Your task to perform on an android device: turn off location history Image 0: 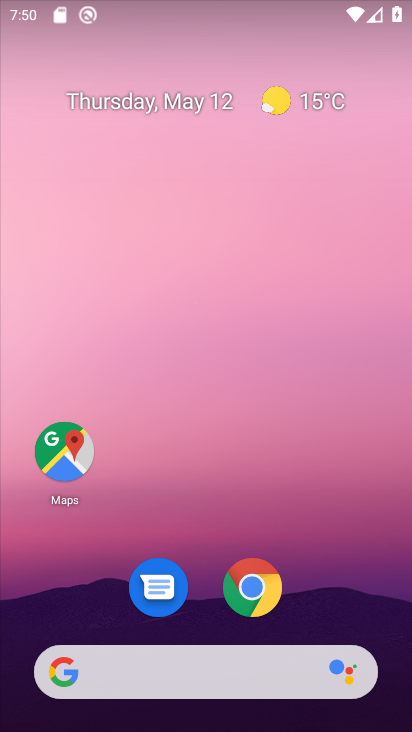
Step 0: drag from (376, 654) to (232, 90)
Your task to perform on an android device: turn off location history Image 1: 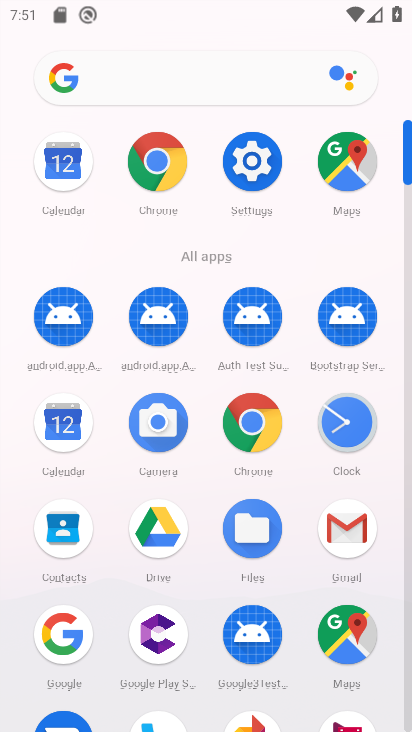
Step 1: click (259, 180)
Your task to perform on an android device: turn off location history Image 2: 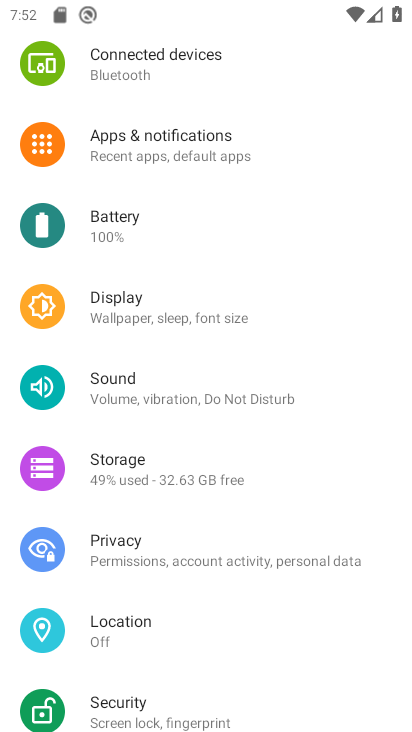
Step 2: click (183, 641)
Your task to perform on an android device: turn off location history Image 3: 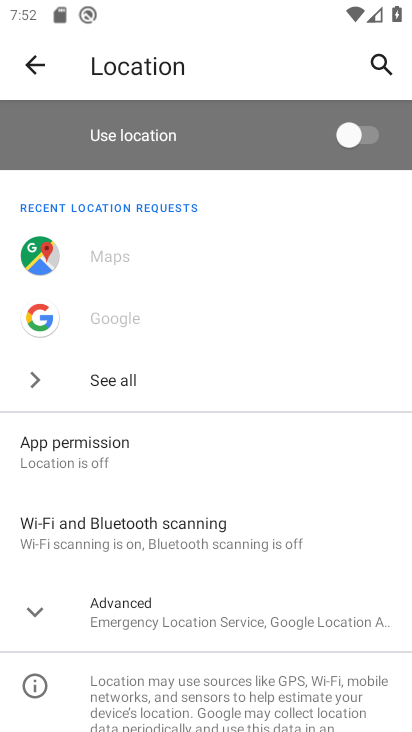
Step 3: click (103, 615)
Your task to perform on an android device: turn off location history Image 4: 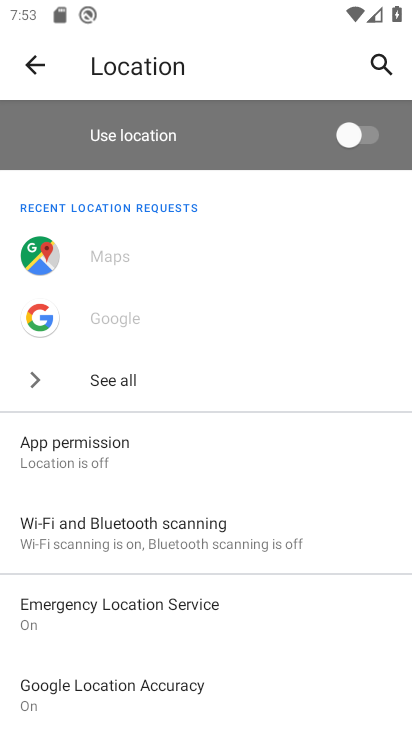
Step 4: drag from (215, 679) to (228, 405)
Your task to perform on an android device: turn off location history Image 5: 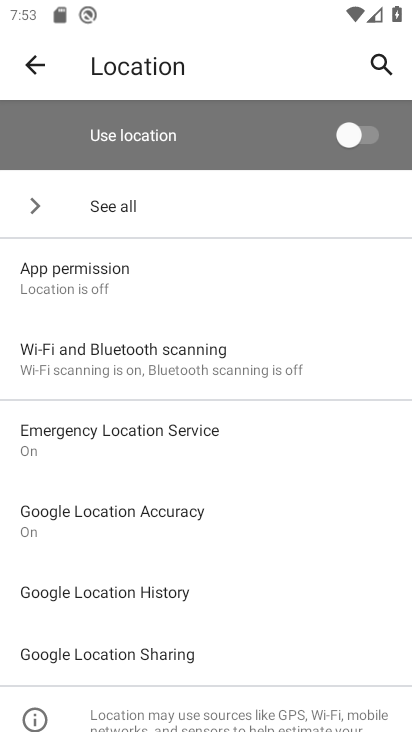
Step 5: click (160, 596)
Your task to perform on an android device: turn off location history Image 6: 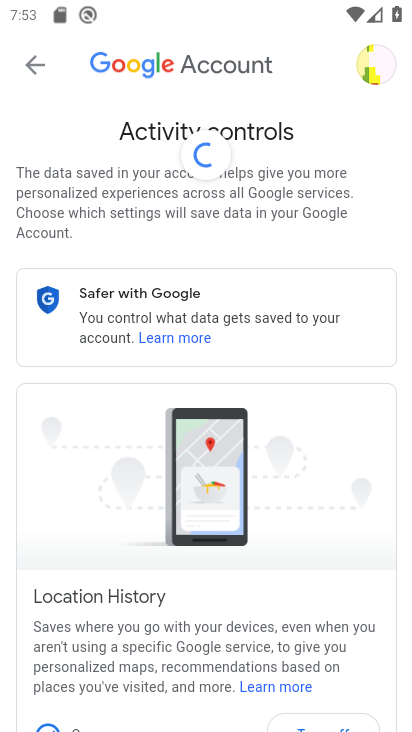
Step 6: task complete